Your task to perform on an android device: What's the weather today? Image 0: 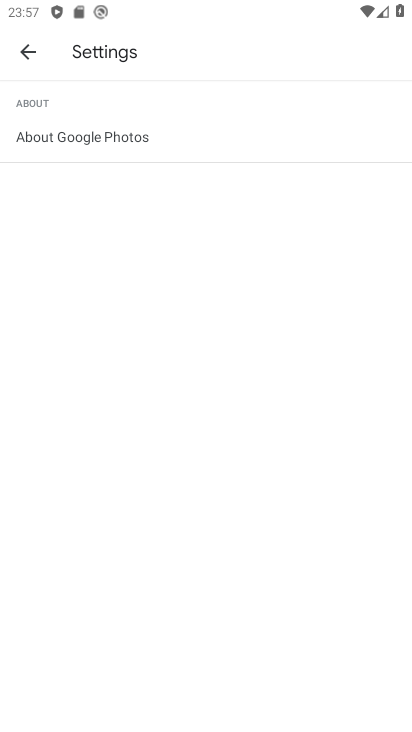
Step 0: press home button
Your task to perform on an android device: What's the weather today? Image 1: 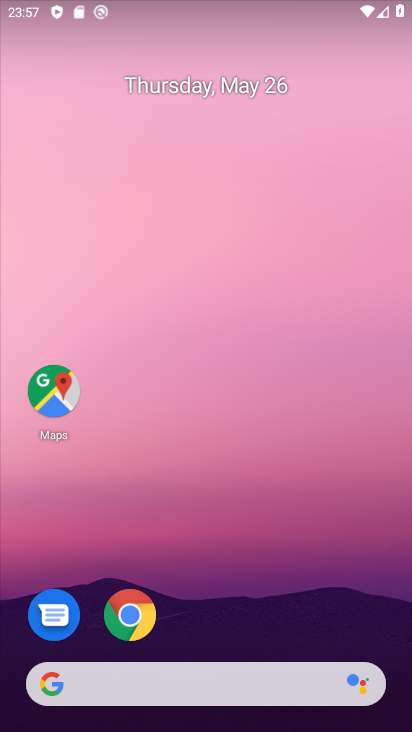
Step 1: click (136, 585)
Your task to perform on an android device: What's the weather today? Image 2: 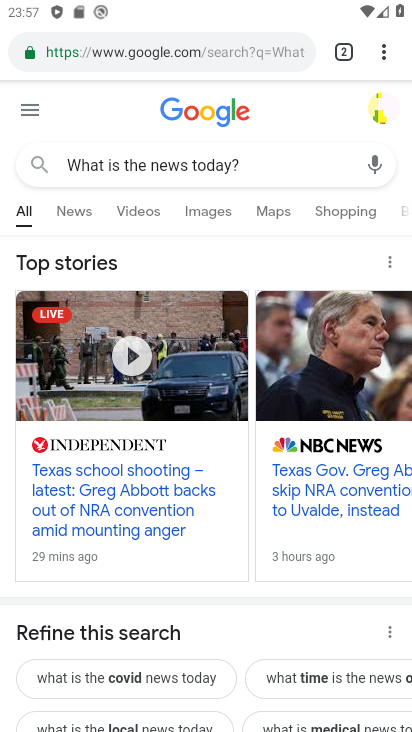
Step 2: click (251, 44)
Your task to perform on an android device: What's the weather today? Image 3: 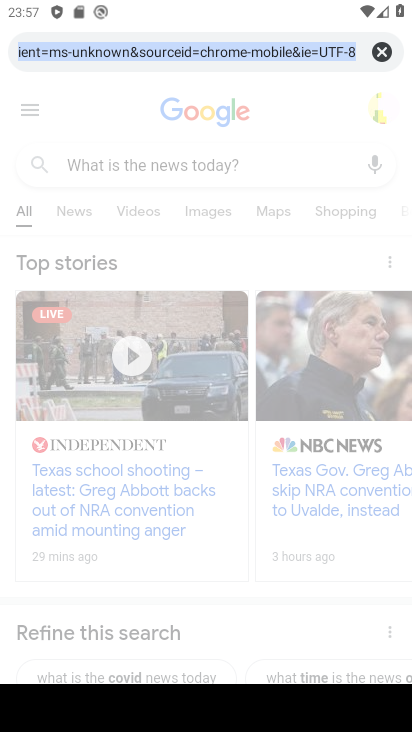
Step 3: click (376, 47)
Your task to perform on an android device: What's the weather today? Image 4: 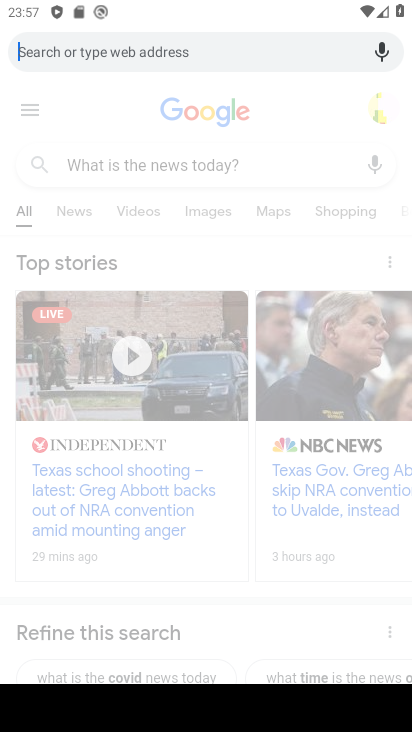
Step 4: type "What's the weather today?"
Your task to perform on an android device: What's the weather today? Image 5: 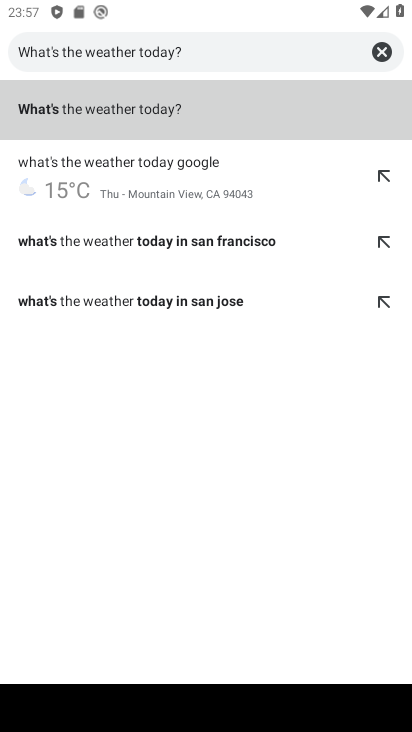
Step 5: click (111, 117)
Your task to perform on an android device: What's the weather today? Image 6: 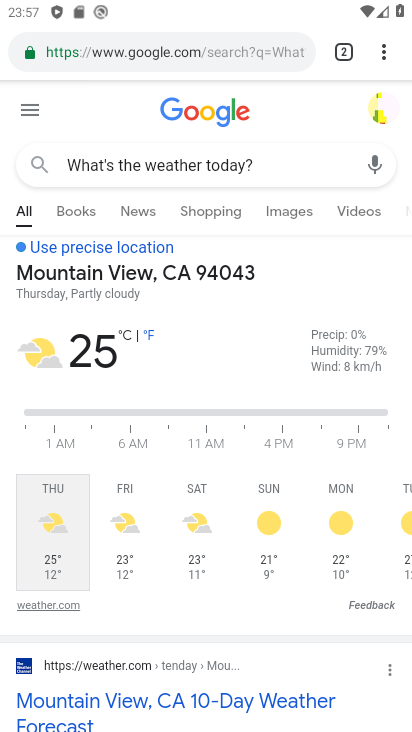
Step 6: task complete